Your task to perform on an android device: check google app version Image 0: 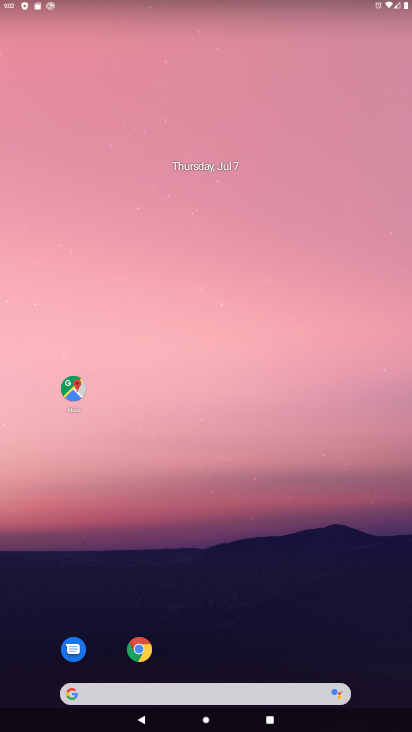
Step 0: drag from (160, 628) to (133, 2)
Your task to perform on an android device: check google app version Image 1: 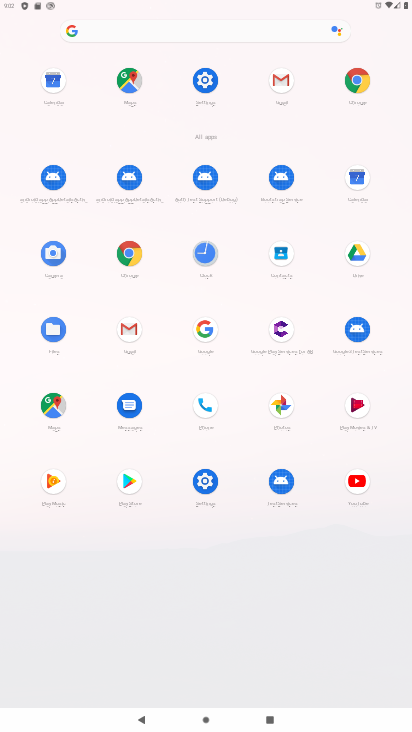
Step 1: click (207, 332)
Your task to perform on an android device: check google app version Image 2: 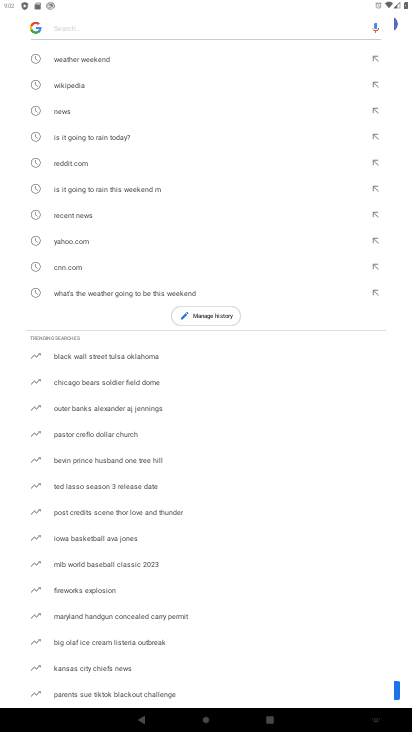
Step 2: press back button
Your task to perform on an android device: check google app version Image 3: 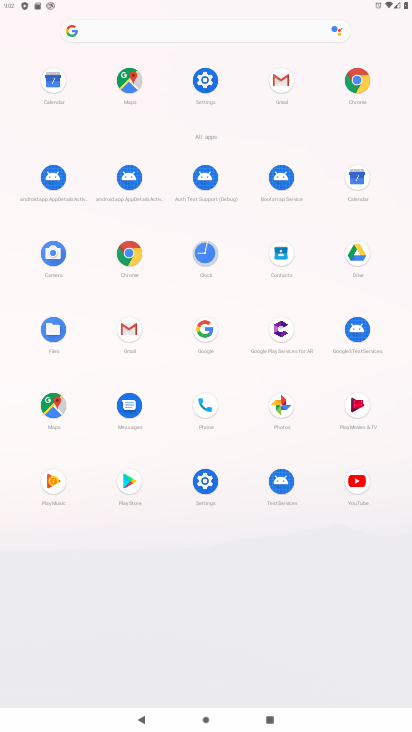
Step 3: click (201, 329)
Your task to perform on an android device: check google app version Image 4: 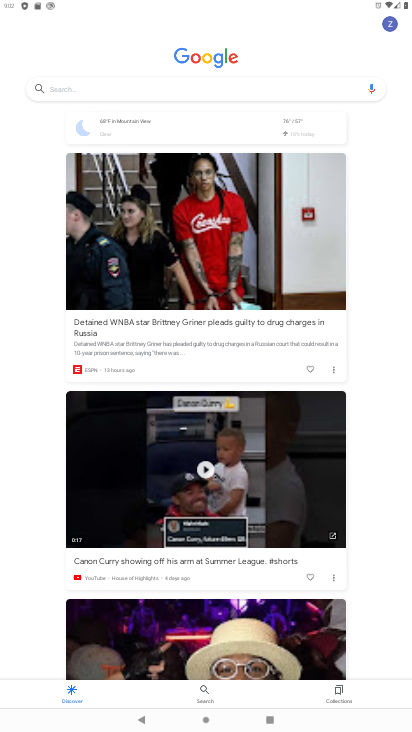
Step 4: click (390, 26)
Your task to perform on an android device: check google app version Image 5: 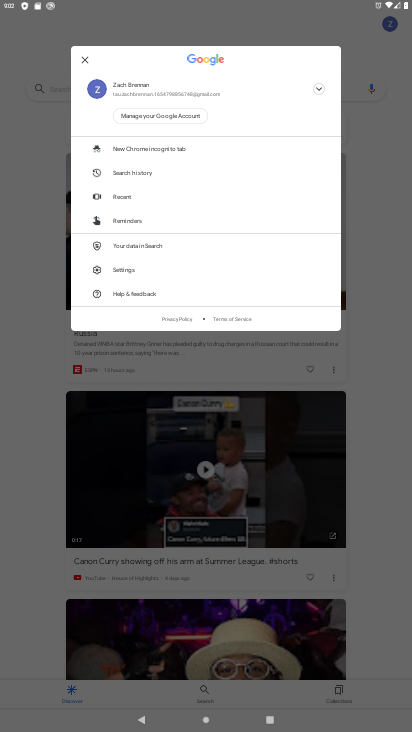
Step 5: click (131, 292)
Your task to perform on an android device: check google app version Image 6: 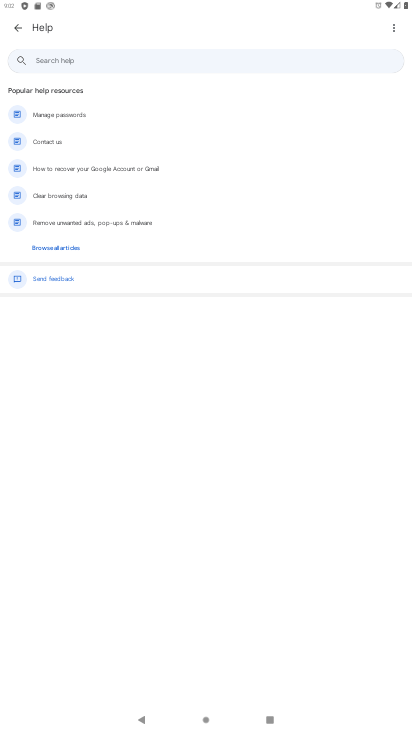
Step 6: click (391, 27)
Your task to perform on an android device: check google app version Image 7: 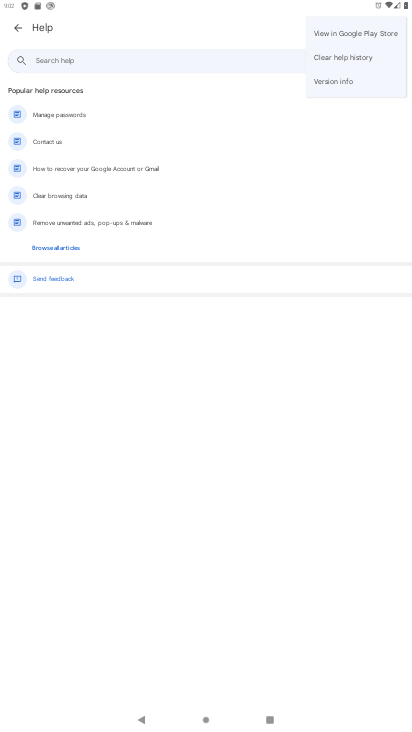
Step 7: click (354, 81)
Your task to perform on an android device: check google app version Image 8: 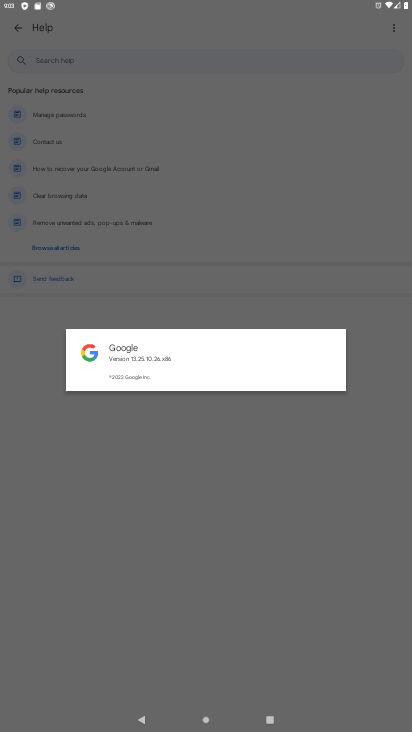
Step 8: task complete